Your task to perform on an android device: Open Chrome and go to settings Image 0: 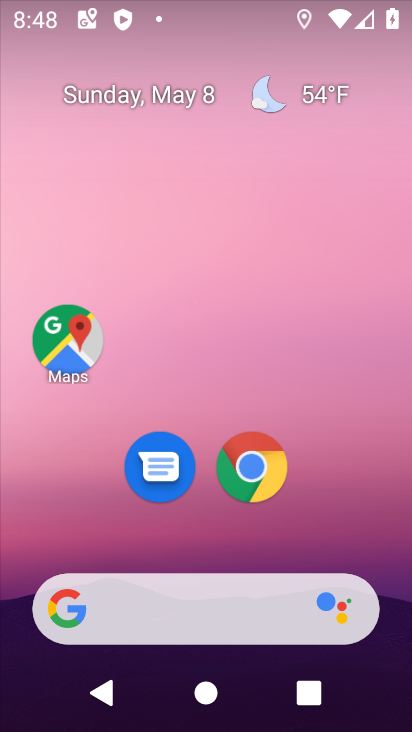
Step 0: click (252, 470)
Your task to perform on an android device: Open Chrome and go to settings Image 1: 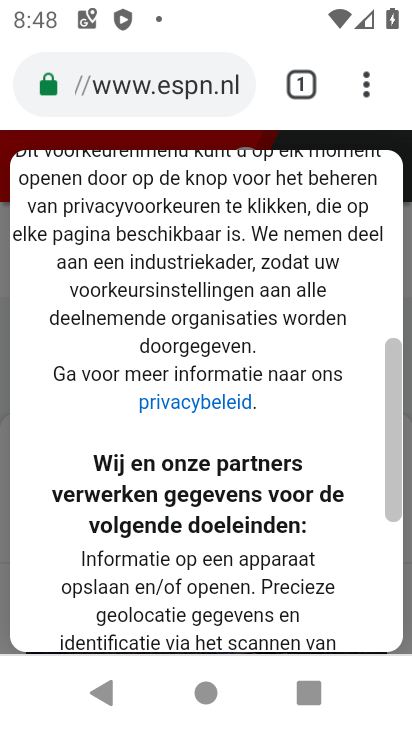
Step 1: click (368, 91)
Your task to perform on an android device: Open Chrome and go to settings Image 2: 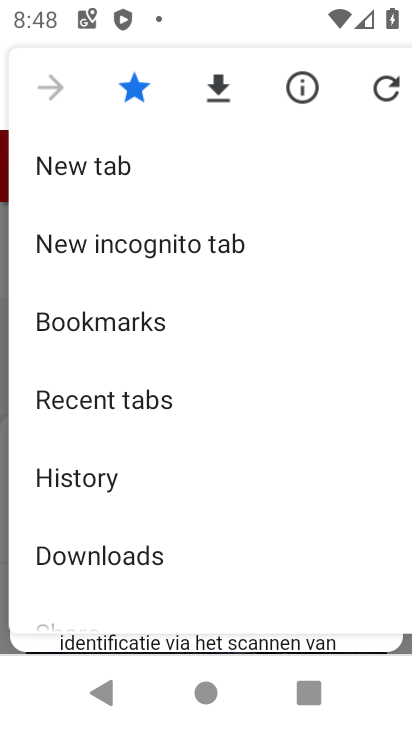
Step 2: drag from (232, 536) to (243, 164)
Your task to perform on an android device: Open Chrome and go to settings Image 3: 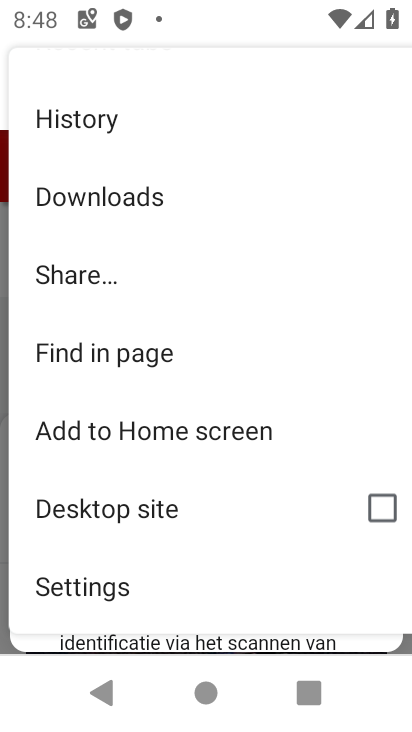
Step 3: drag from (218, 586) to (269, 290)
Your task to perform on an android device: Open Chrome and go to settings Image 4: 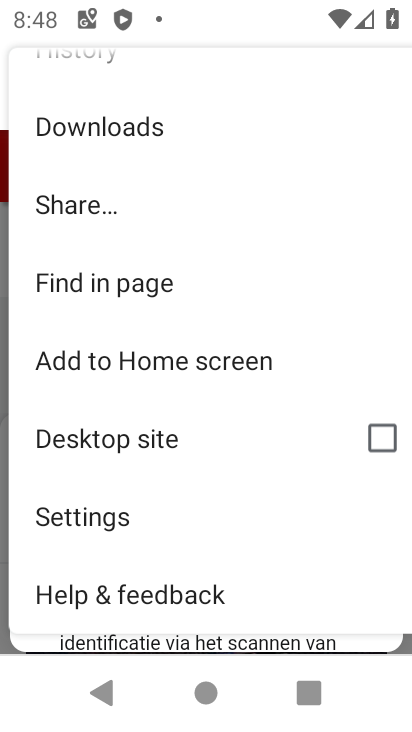
Step 4: click (102, 512)
Your task to perform on an android device: Open Chrome and go to settings Image 5: 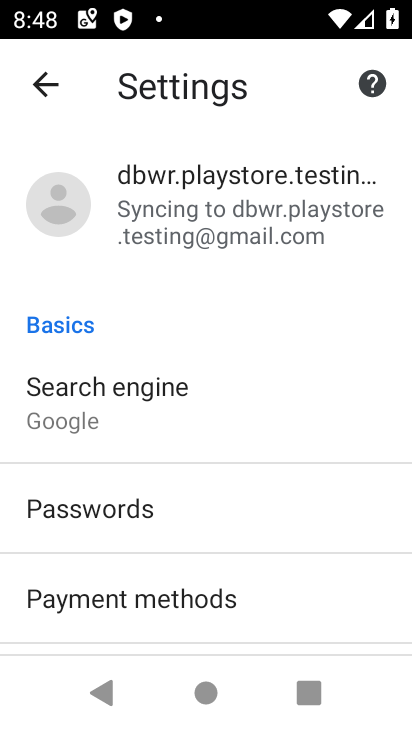
Step 5: task complete